Your task to perform on an android device: open app "NewsBreak: Local News & Alerts" (install if not already installed) Image 0: 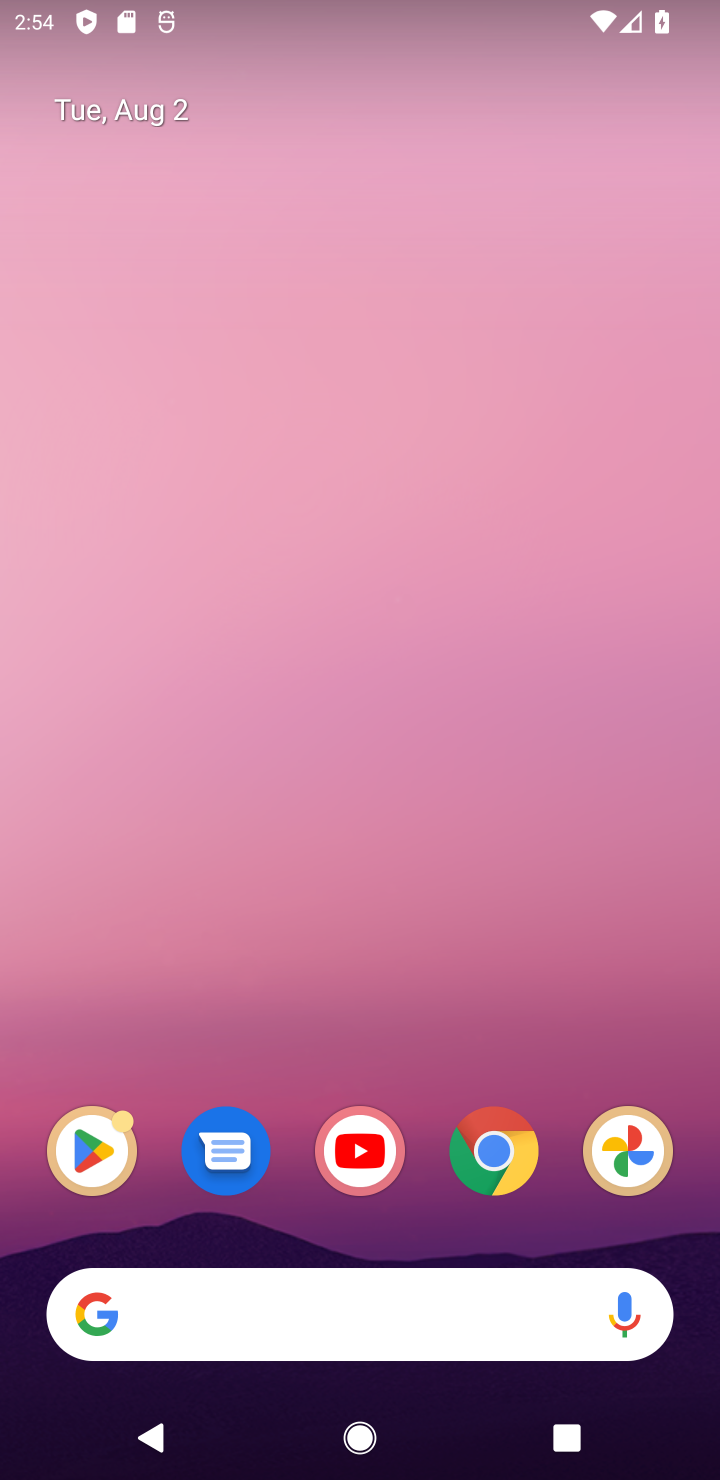
Step 0: drag from (420, 1466) to (388, 451)
Your task to perform on an android device: open app "NewsBreak: Local News & Alerts" (install if not already installed) Image 1: 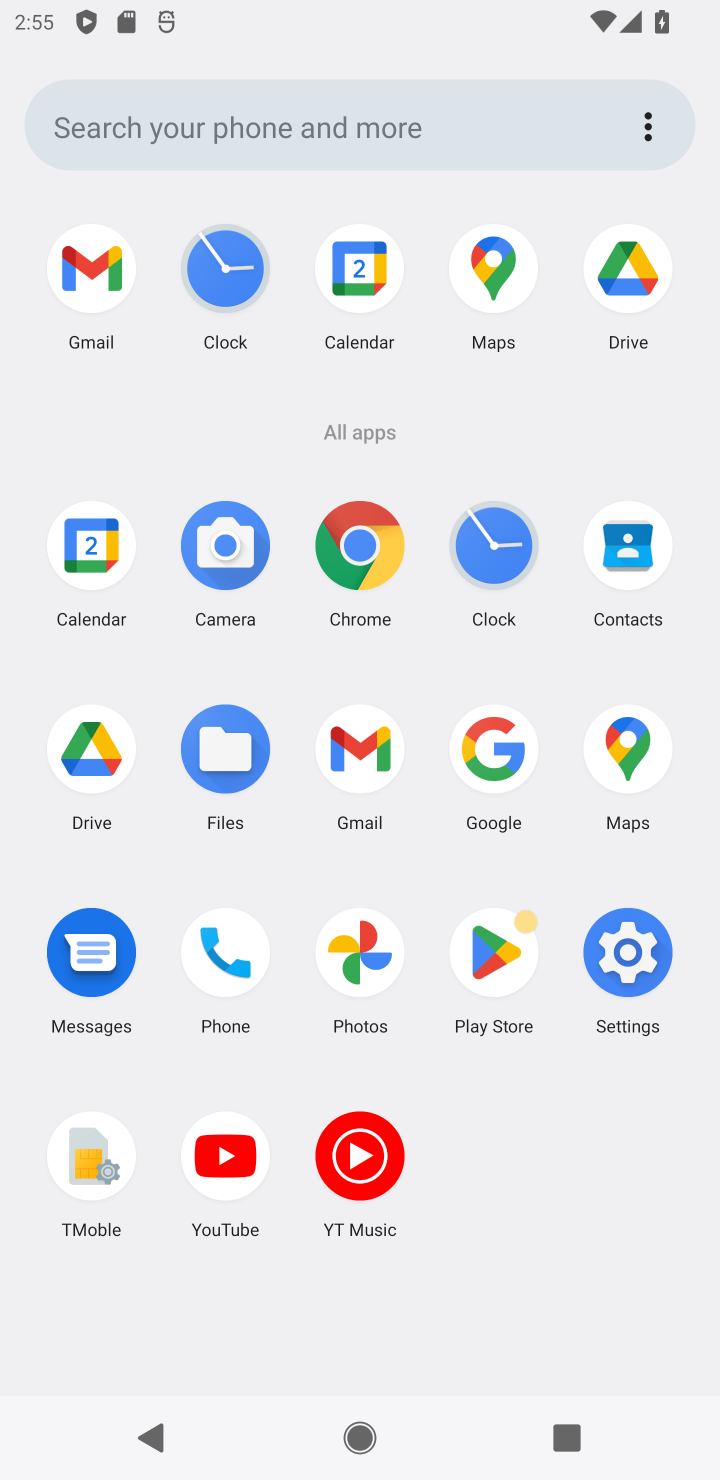
Step 1: click (498, 947)
Your task to perform on an android device: open app "NewsBreak: Local News & Alerts" (install if not already installed) Image 2: 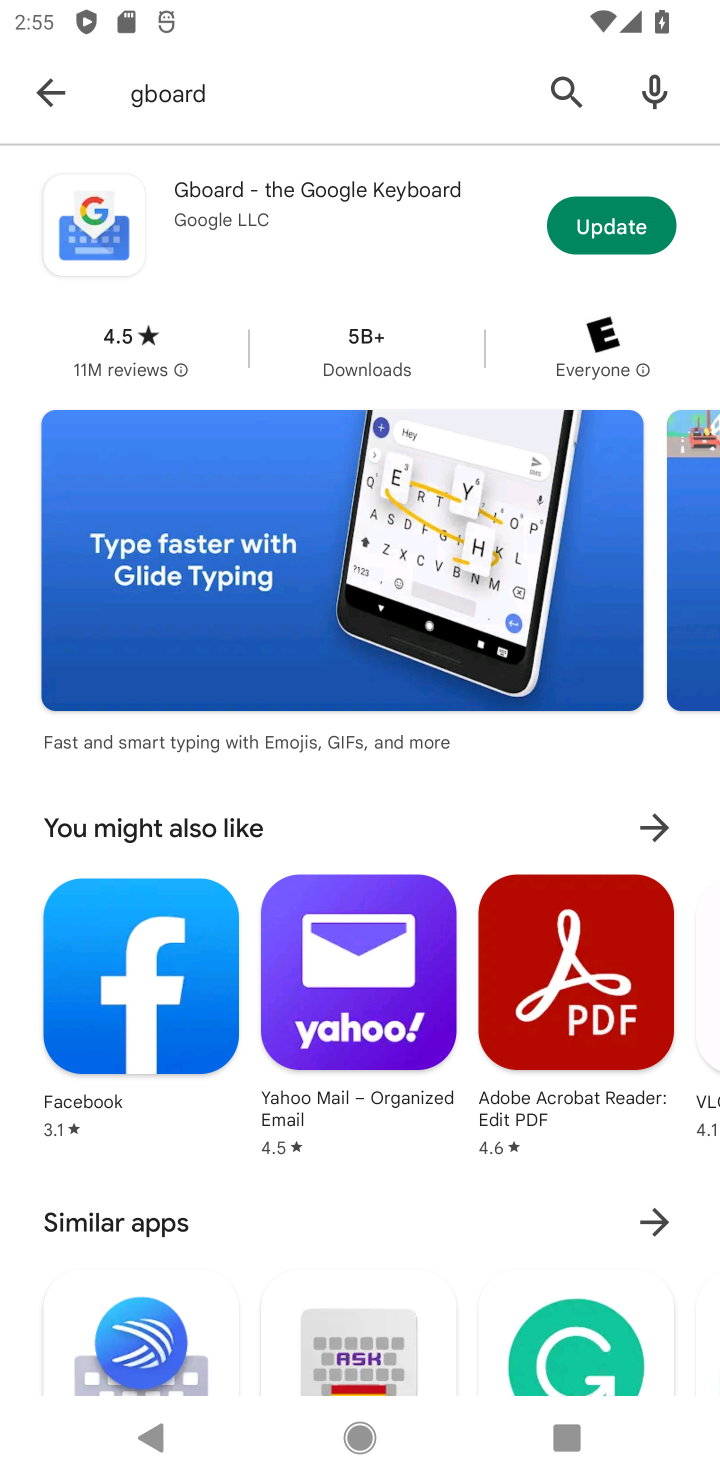
Step 2: click (564, 92)
Your task to perform on an android device: open app "NewsBreak: Local News & Alerts" (install if not already installed) Image 3: 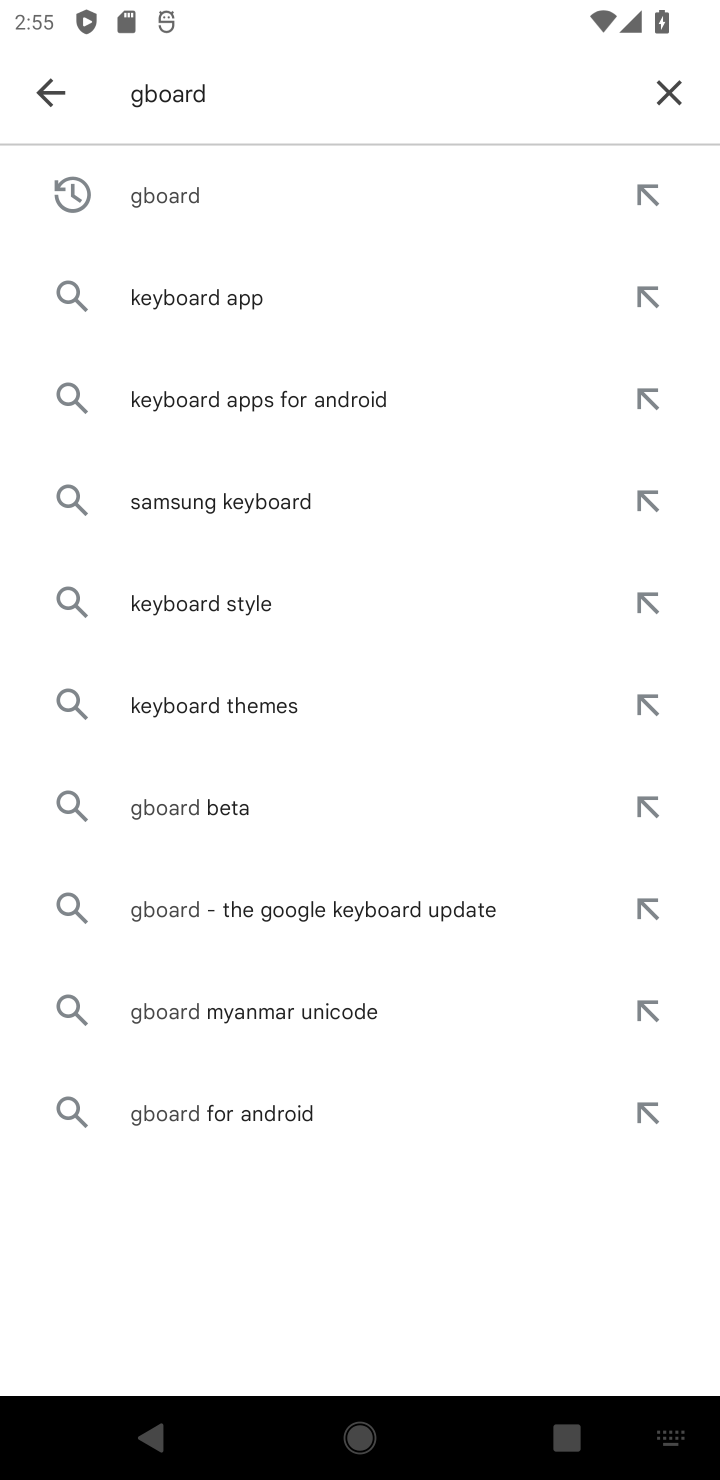
Step 3: click (665, 80)
Your task to perform on an android device: open app "NewsBreak: Local News & Alerts" (install if not already installed) Image 4: 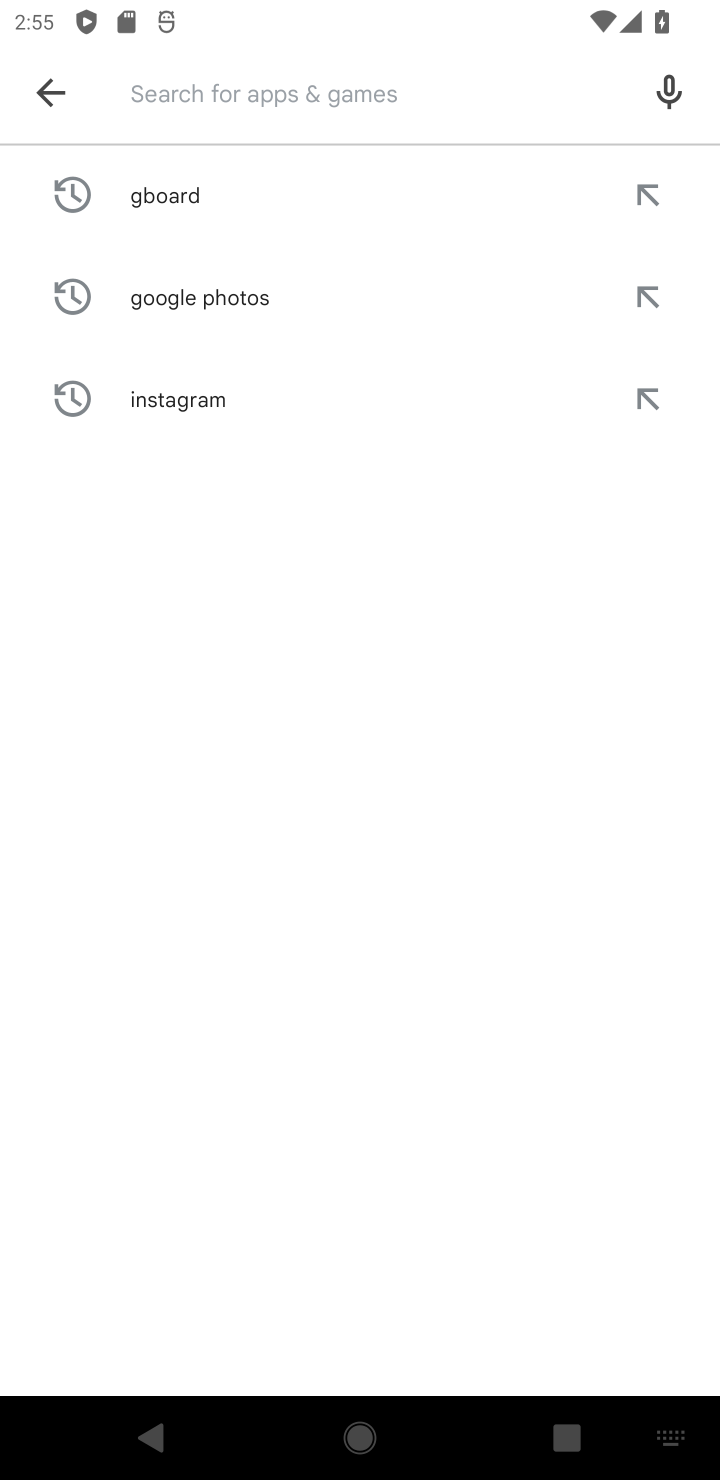
Step 4: type "NewsBreak: Local News & Alerts"
Your task to perform on an android device: open app "NewsBreak: Local News & Alerts" (install if not already installed) Image 5: 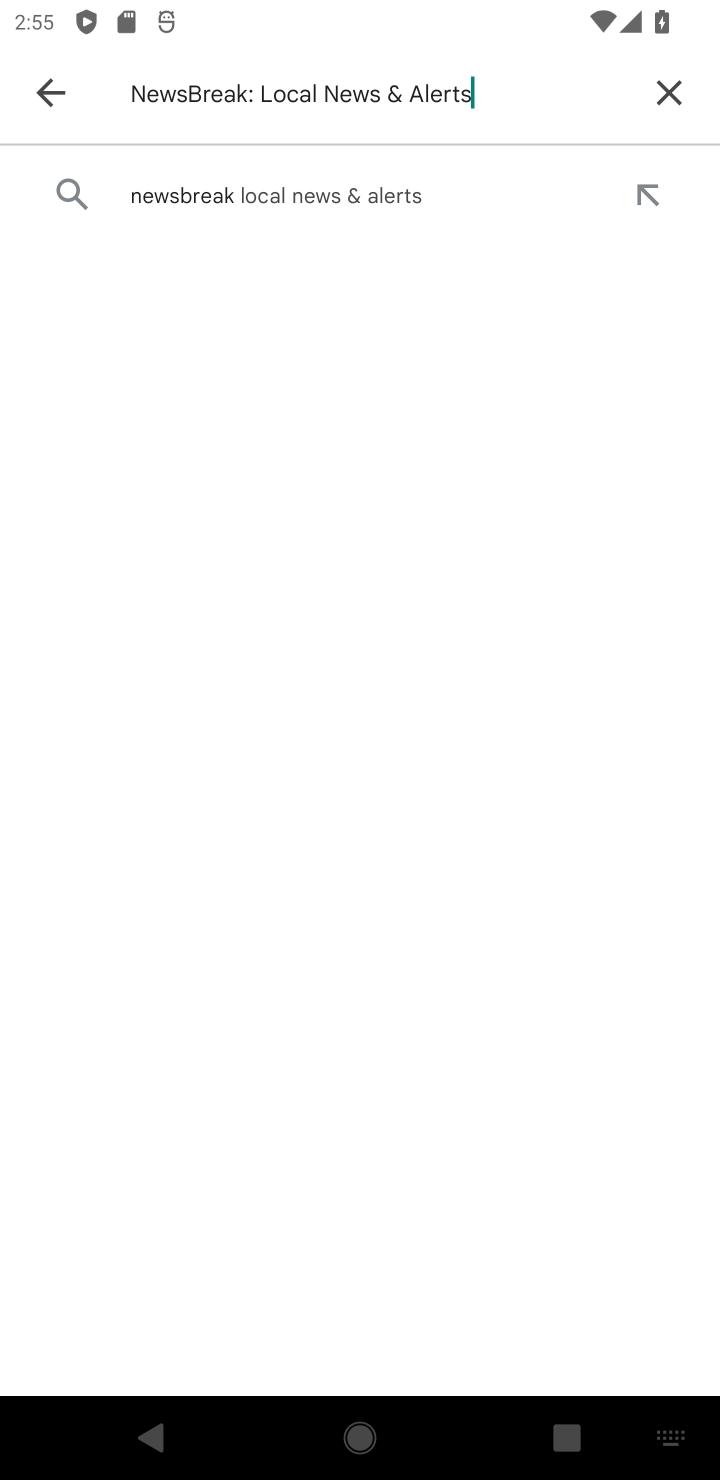
Step 5: click (212, 197)
Your task to perform on an android device: open app "NewsBreak: Local News & Alerts" (install if not already installed) Image 6: 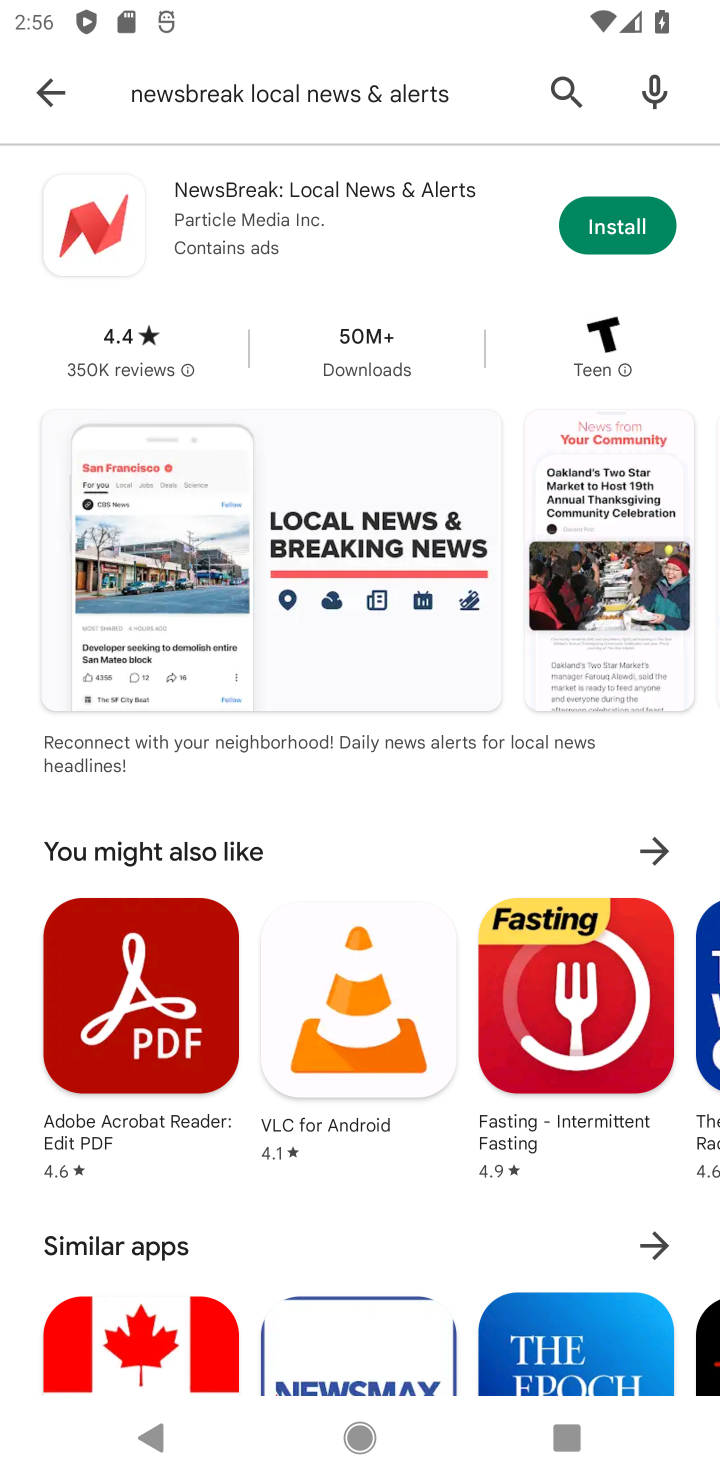
Step 6: click (599, 225)
Your task to perform on an android device: open app "NewsBreak: Local News & Alerts" (install if not already installed) Image 7: 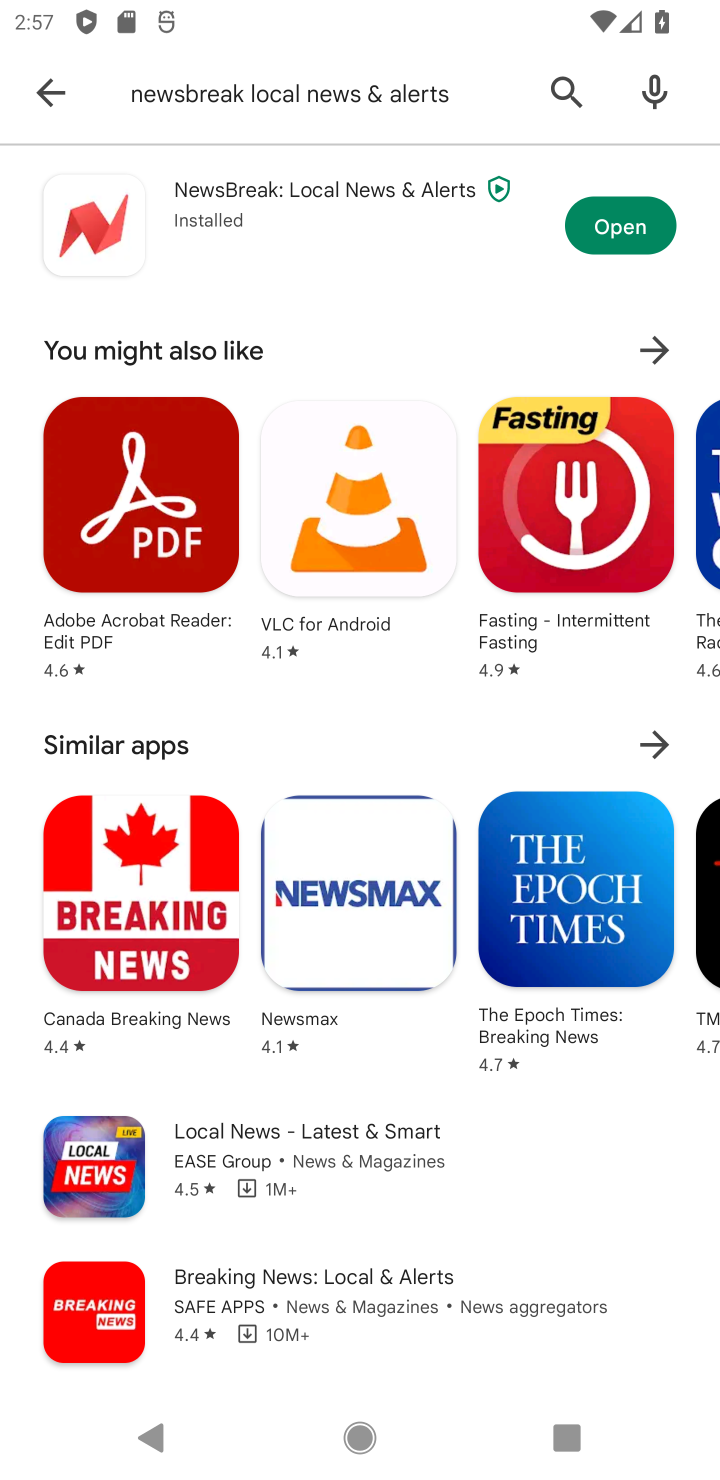
Step 7: task complete